Your task to perform on an android device: Open location settings Image 0: 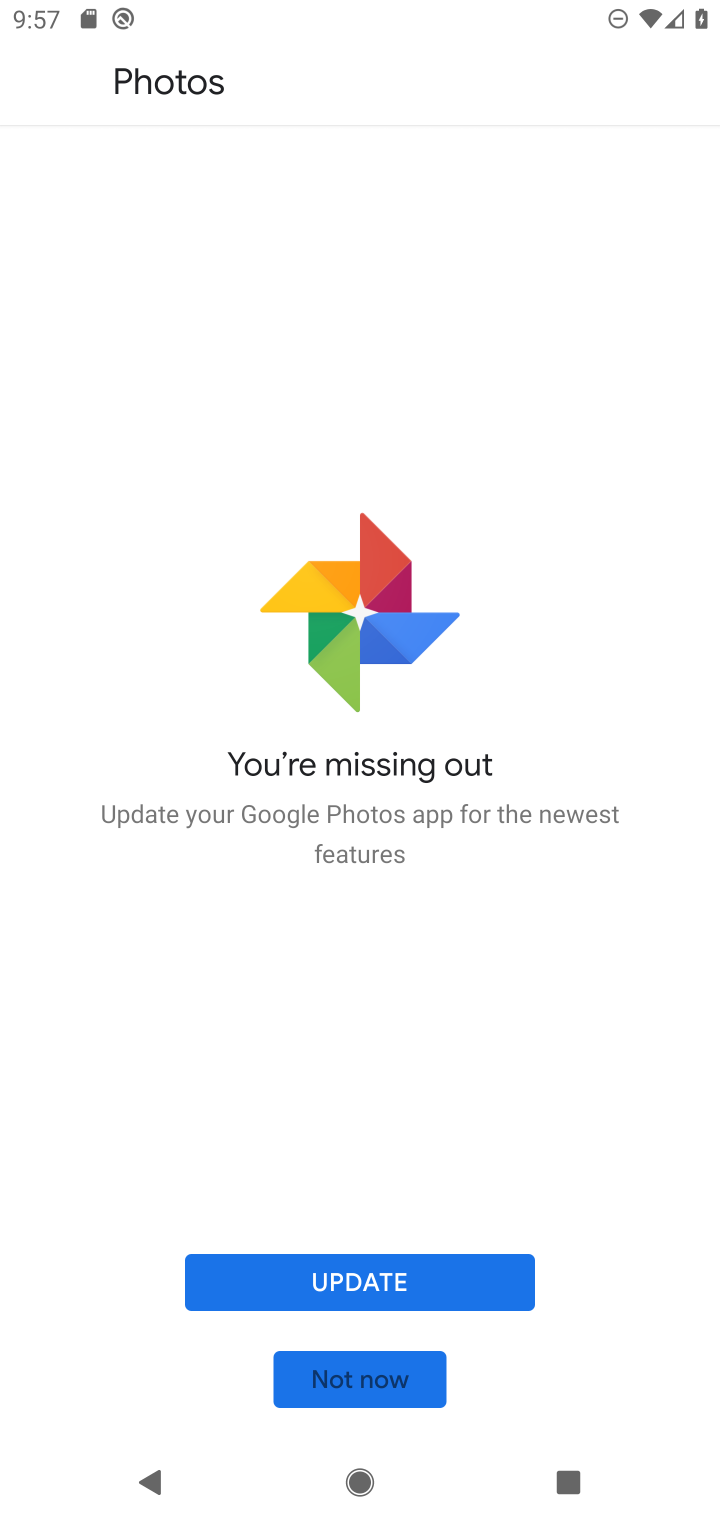
Step 0: press home button
Your task to perform on an android device: Open location settings Image 1: 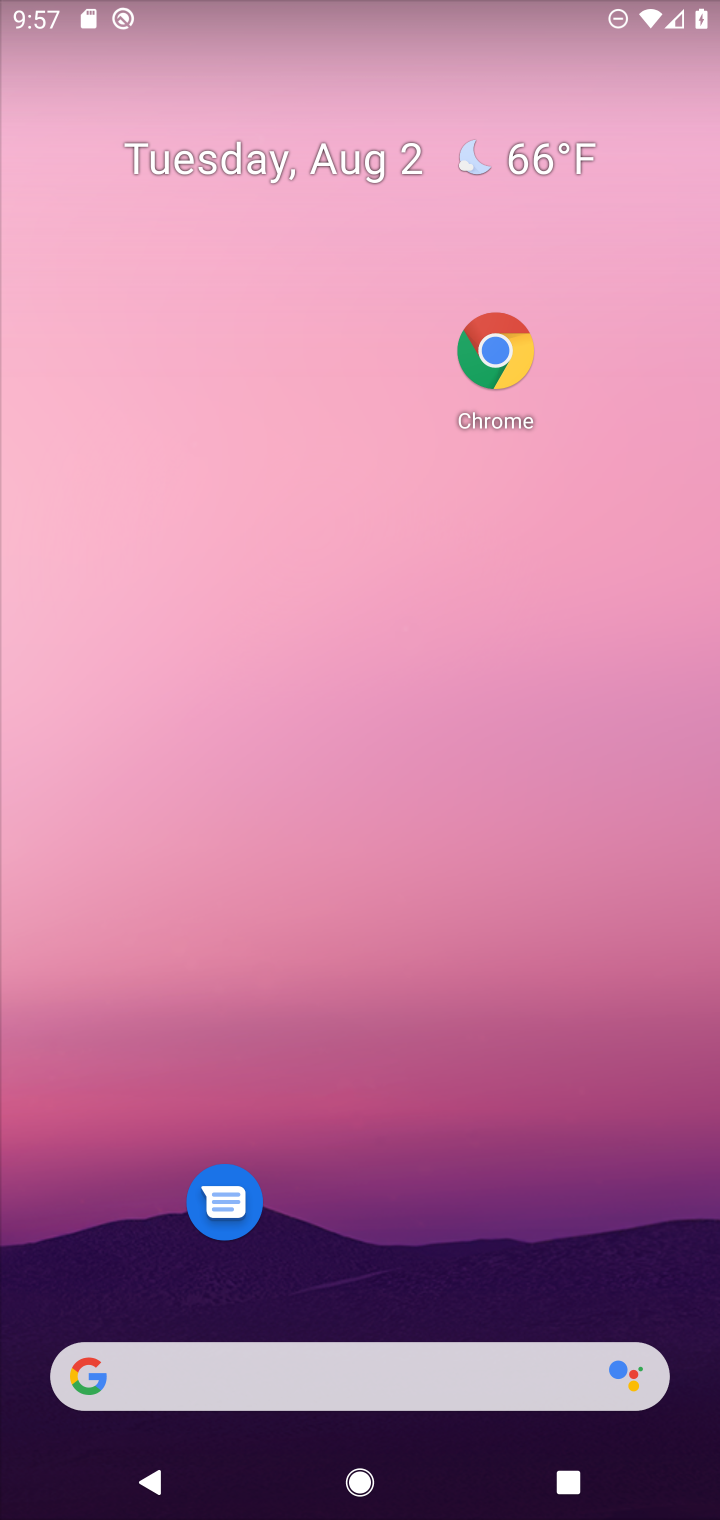
Step 1: drag from (387, 1284) to (338, 140)
Your task to perform on an android device: Open location settings Image 2: 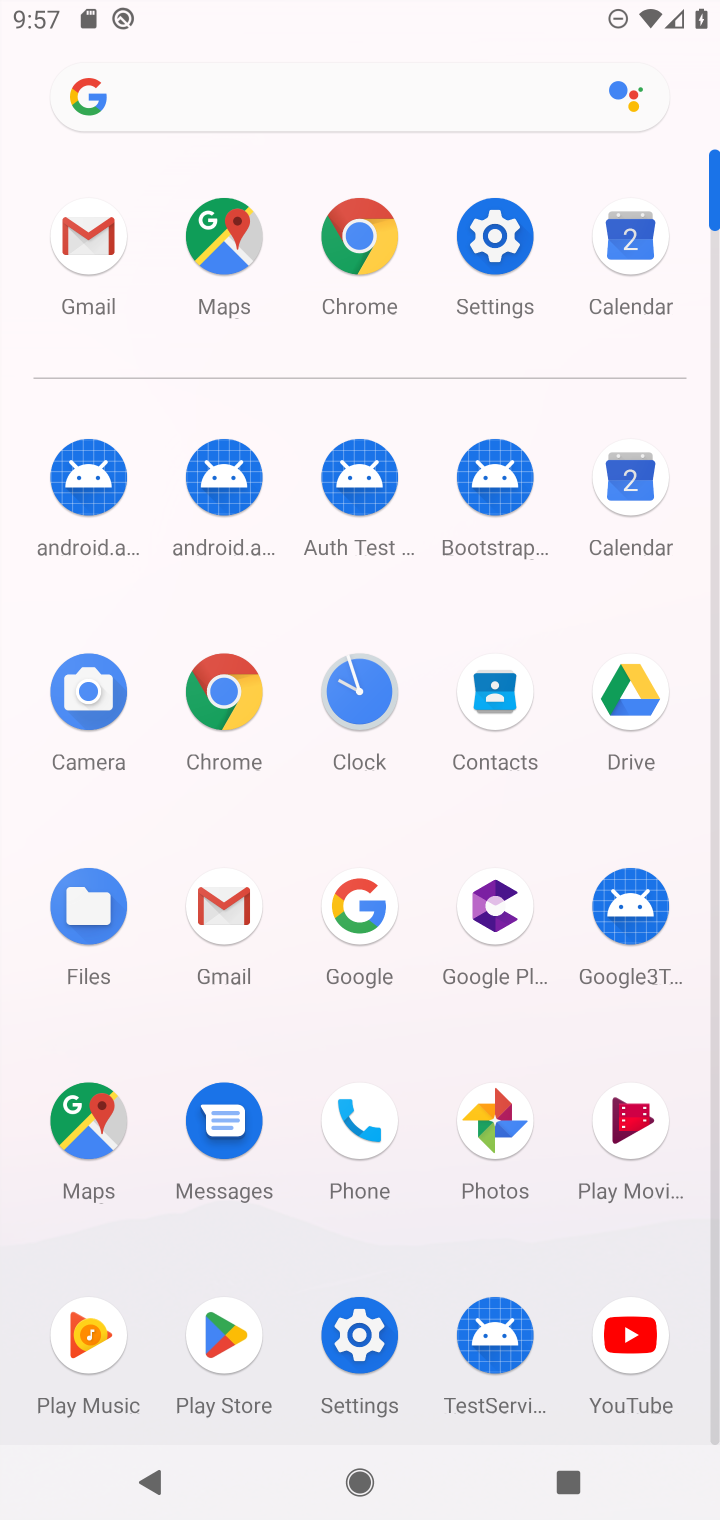
Step 2: click (498, 247)
Your task to perform on an android device: Open location settings Image 3: 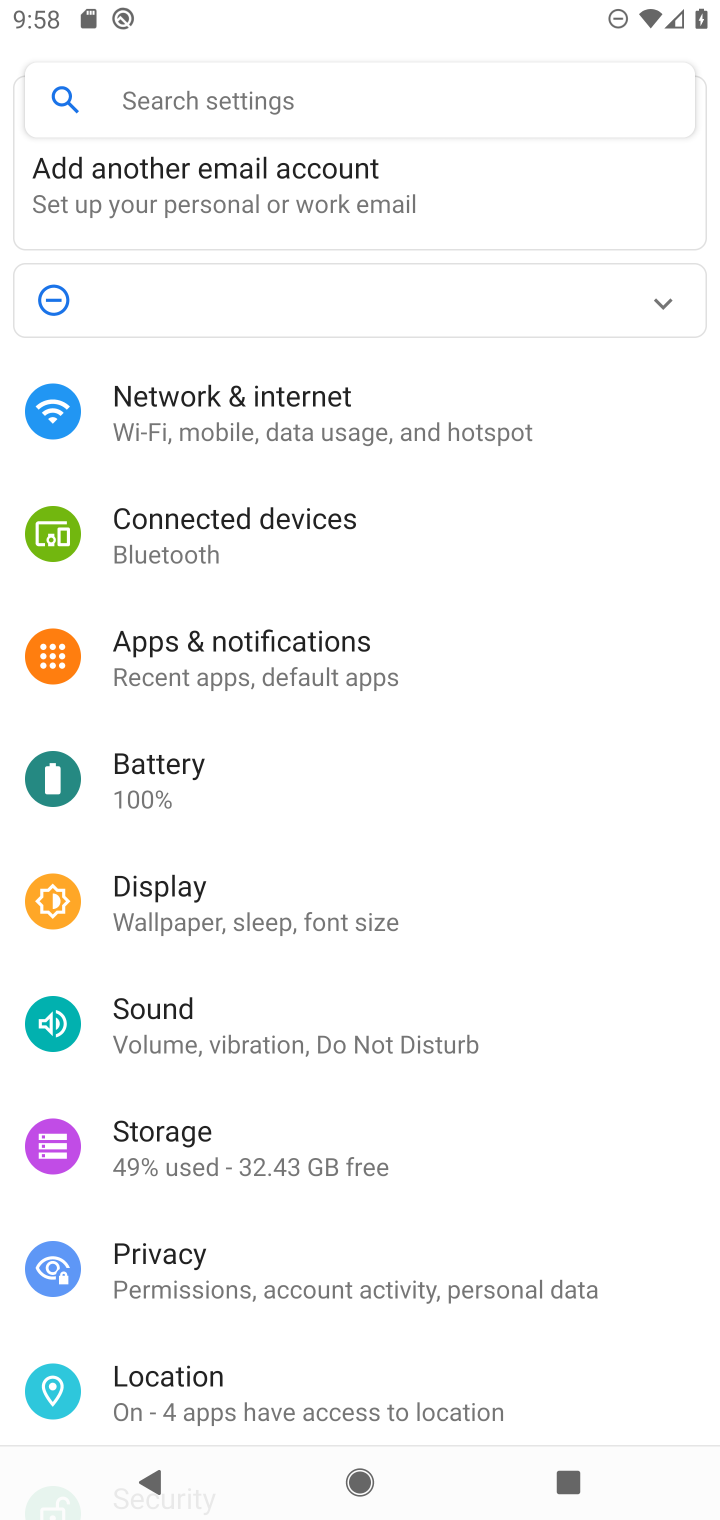
Step 3: click (139, 1376)
Your task to perform on an android device: Open location settings Image 4: 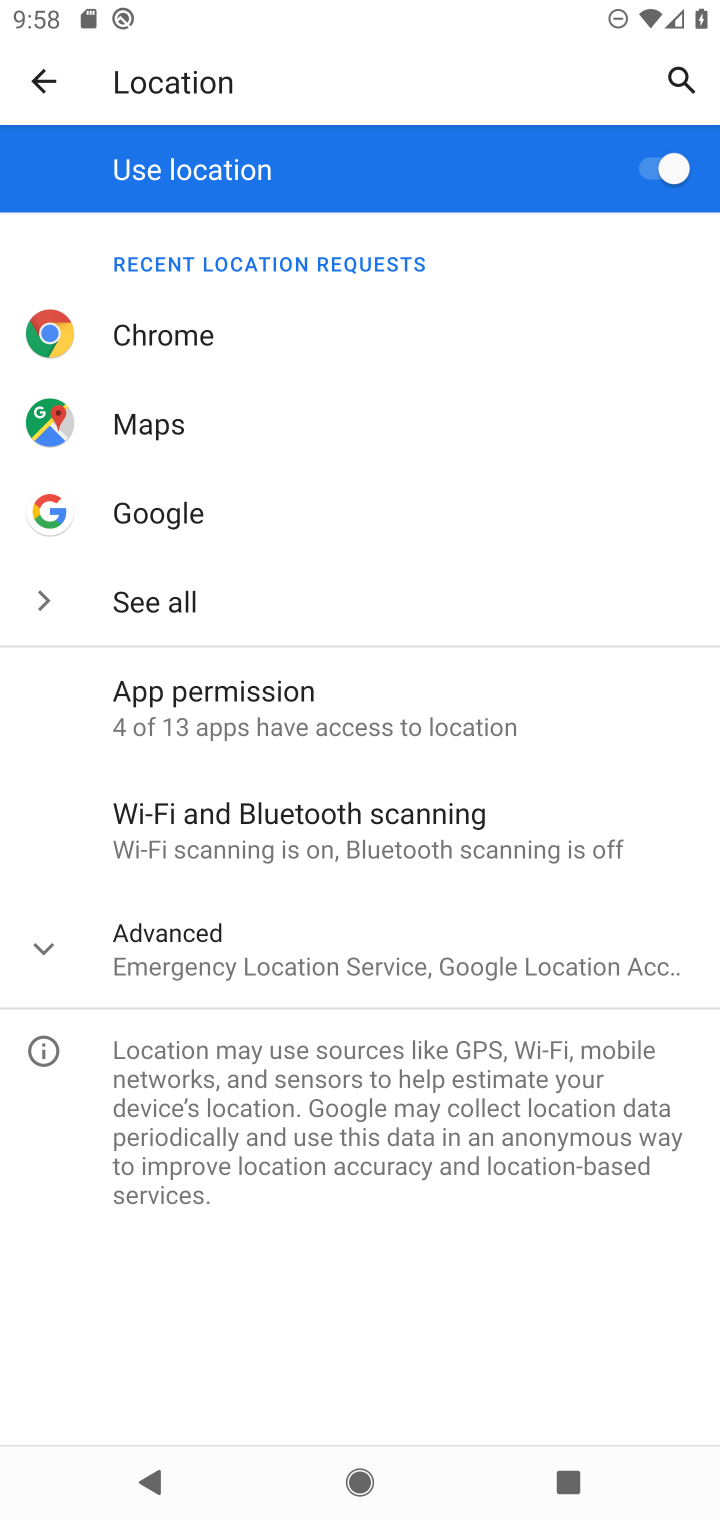
Step 4: task complete